Your task to perform on an android device: allow cookies in the chrome app Image 0: 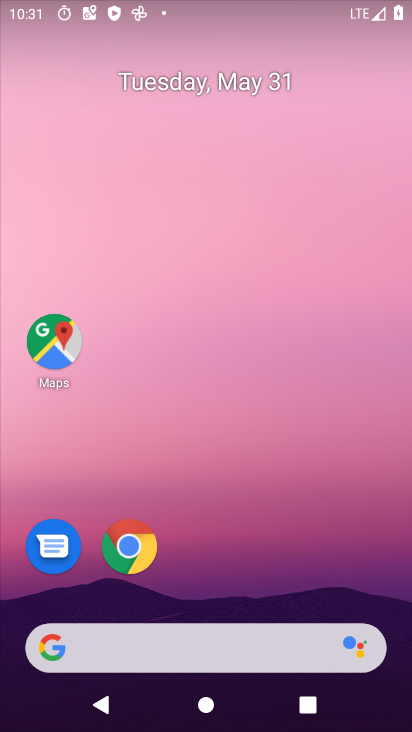
Step 0: click (128, 535)
Your task to perform on an android device: allow cookies in the chrome app Image 1: 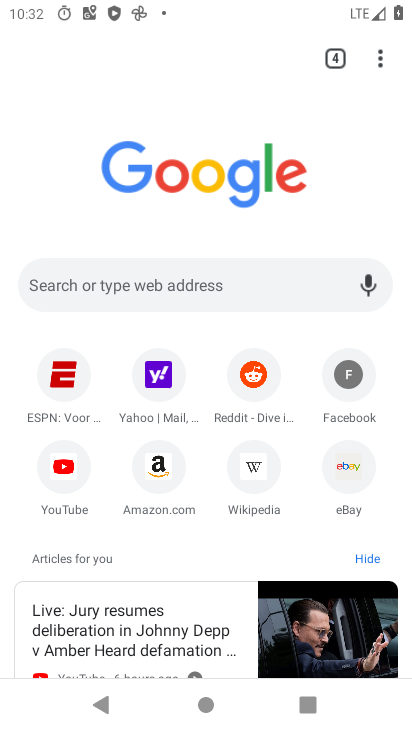
Step 1: click (371, 65)
Your task to perform on an android device: allow cookies in the chrome app Image 2: 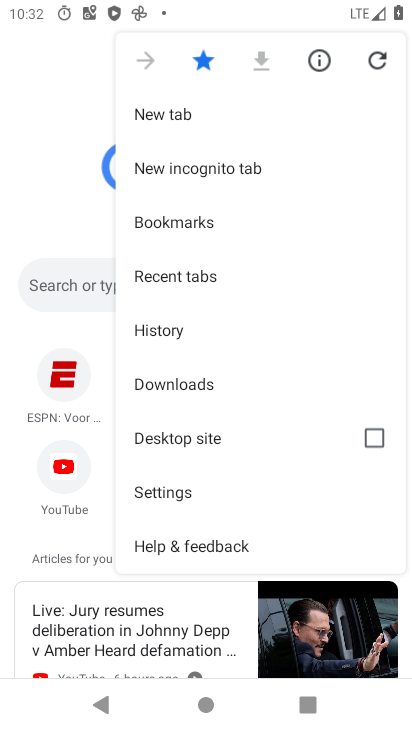
Step 2: click (187, 478)
Your task to perform on an android device: allow cookies in the chrome app Image 3: 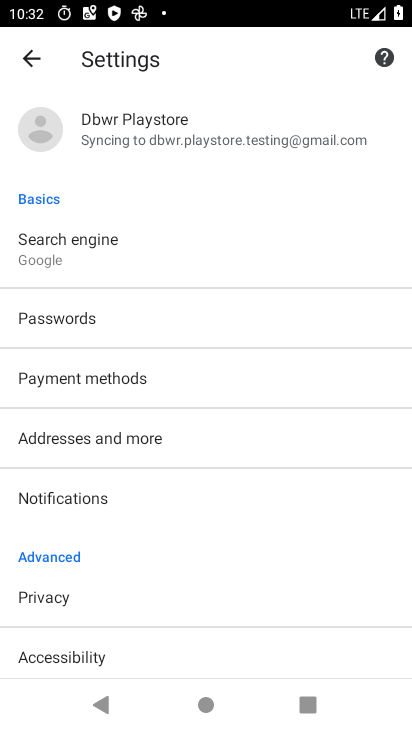
Step 3: drag from (142, 552) to (190, 224)
Your task to perform on an android device: allow cookies in the chrome app Image 4: 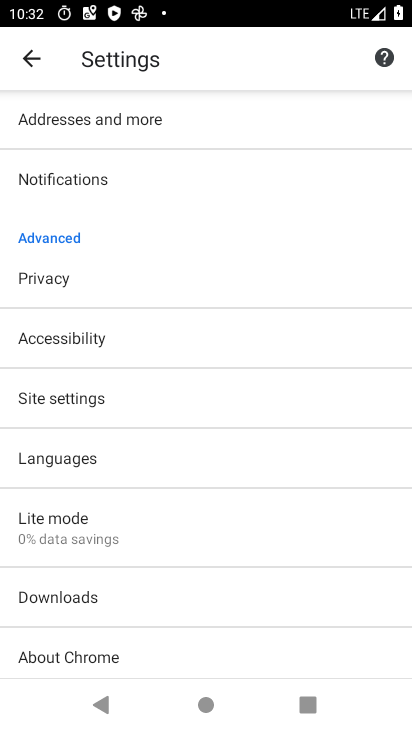
Step 4: click (105, 393)
Your task to perform on an android device: allow cookies in the chrome app Image 5: 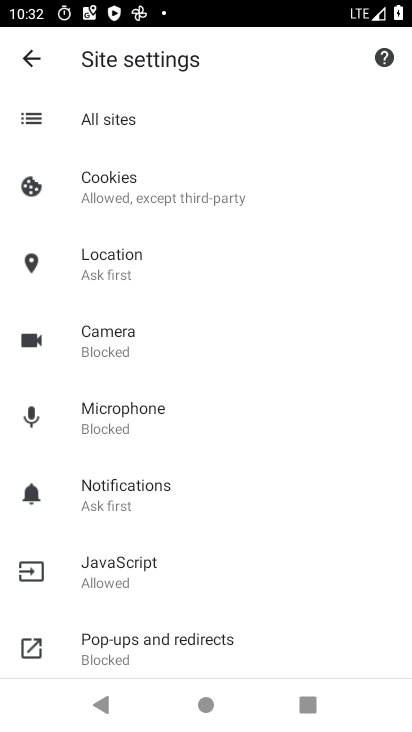
Step 5: click (192, 187)
Your task to perform on an android device: allow cookies in the chrome app Image 6: 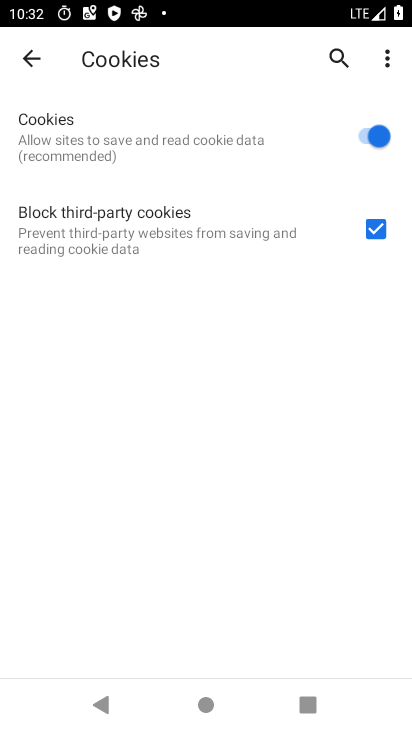
Step 6: task complete